Your task to perform on an android device: Turn on the flashlight Image 0: 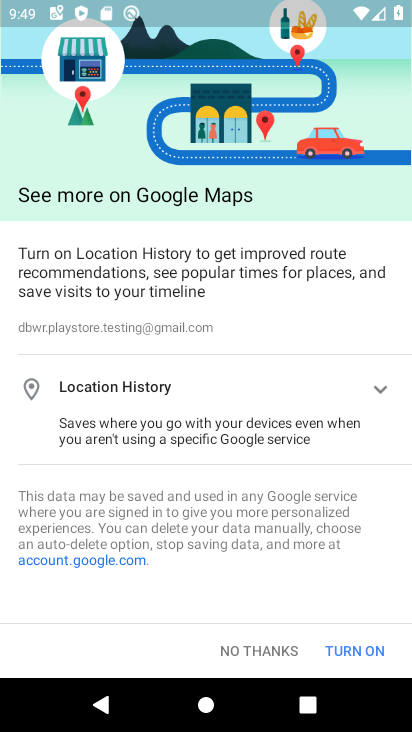
Step 0: press home button
Your task to perform on an android device: Turn on the flashlight Image 1: 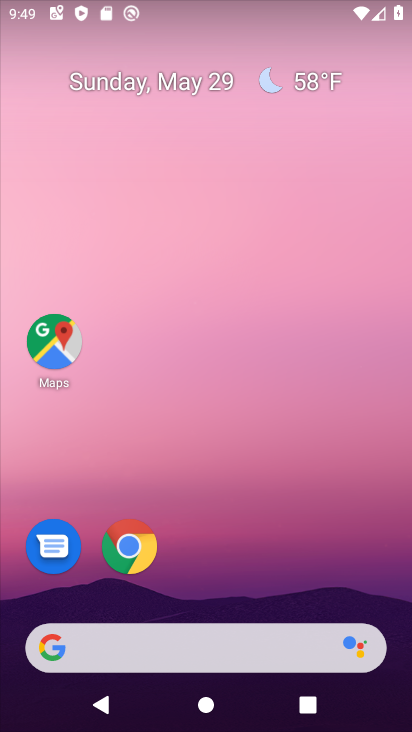
Step 1: task complete